Your task to perform on an android device: turn off priority inbox in the gmail app Image 0: 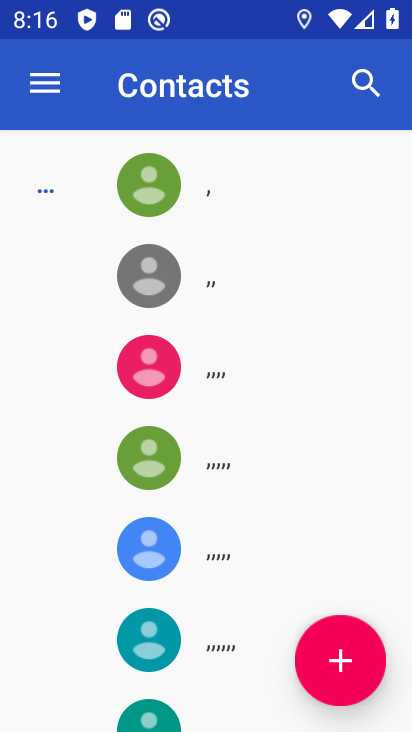
Step 0: press home button
Your task to perform on an android device: turn off priority inbox in the gmail app Image 1: 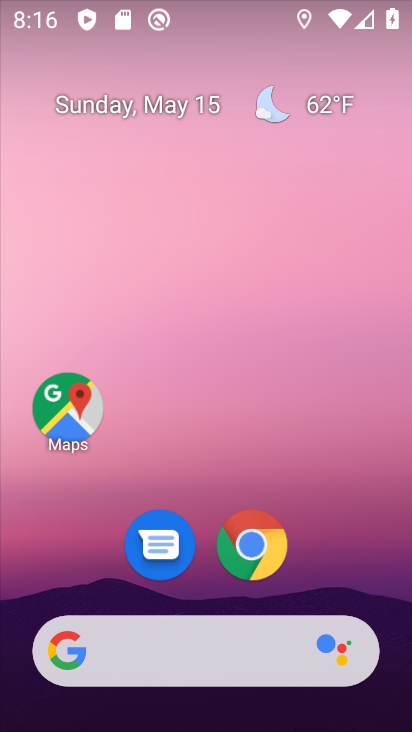
Step 1: drag from (320, 577) to (281, 229)
Your task to perform on an android device: turn off priority inbox in the gmail app Image 2: 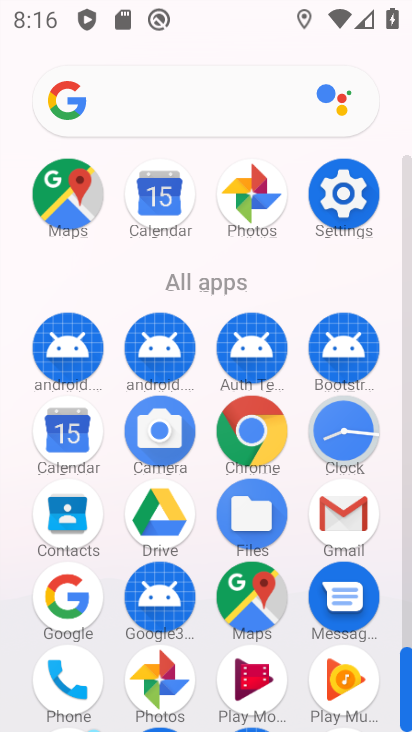
Step 2: click (67, 583)
Your task to perform on an android device: turn off priority inbox in the gmail app Image 3: 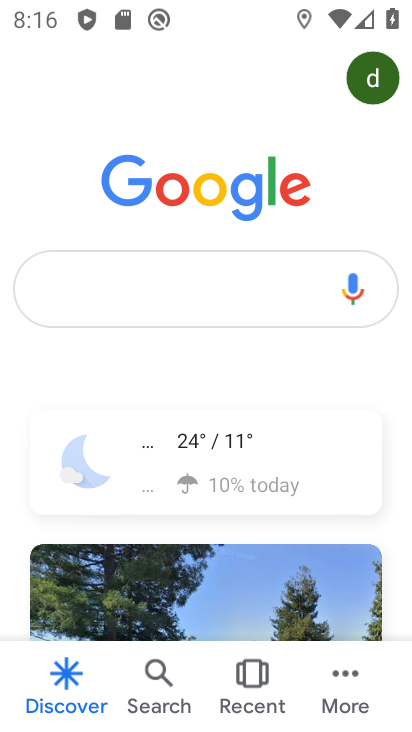
Step 3: click (207, 305)
Your task to perform on an android device: turn off priority inbox in the gmail app Image 4: 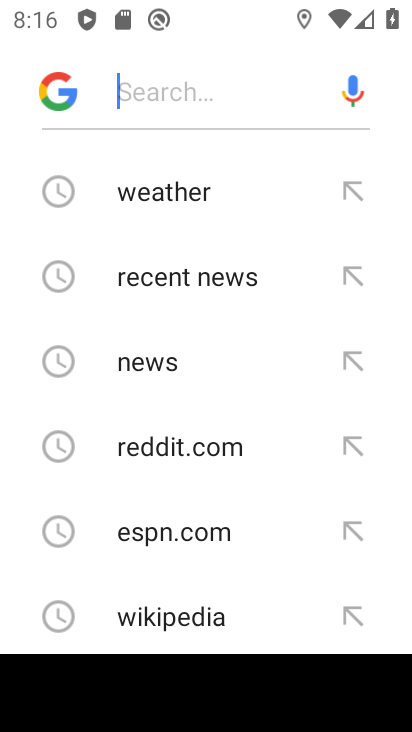
Step 4: click (175, 201)
Your task to perform on an android device: turn off priority inbox in the gmail app Image 5: 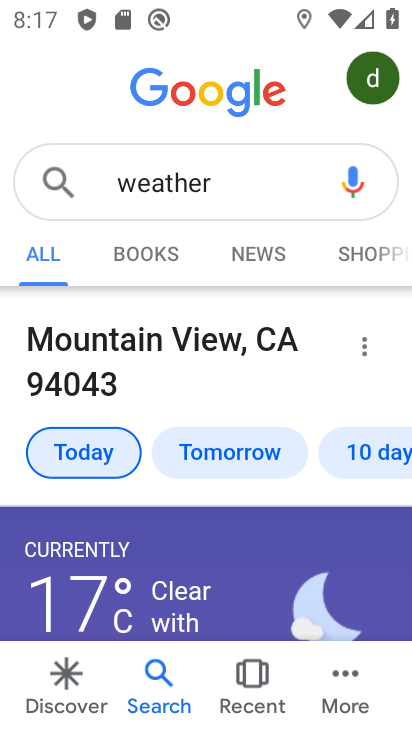
Step 5: task complete